Your task to perform on an android device: add a contact Image 0: 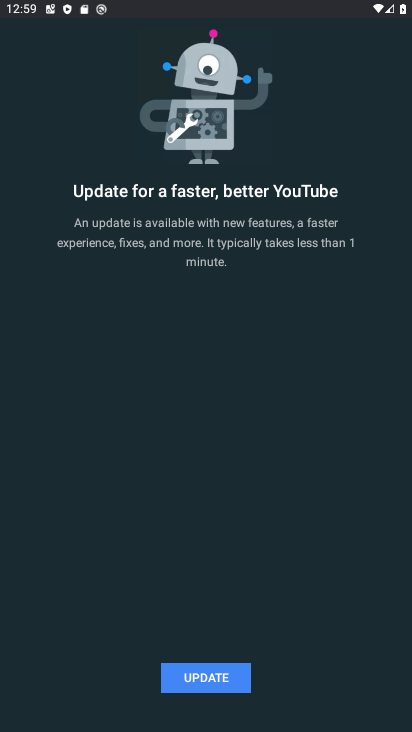
Step 0: press home button
Your task to perform on an android device: add a contact Image 1: 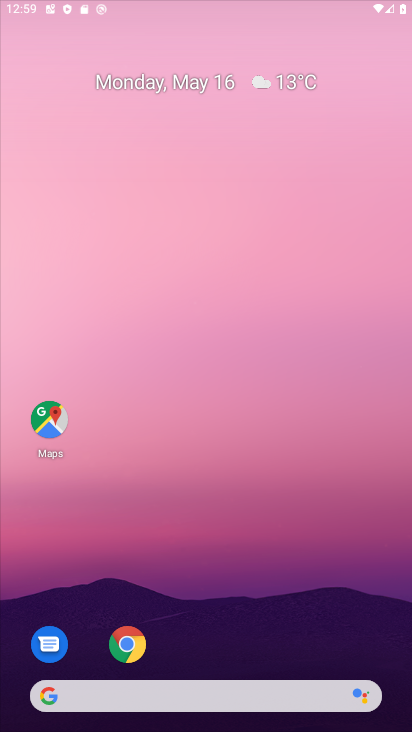
Step 1: drag from (184, 730) to (268, 259)
Your task to perform on an android device: add a contact Image 2: 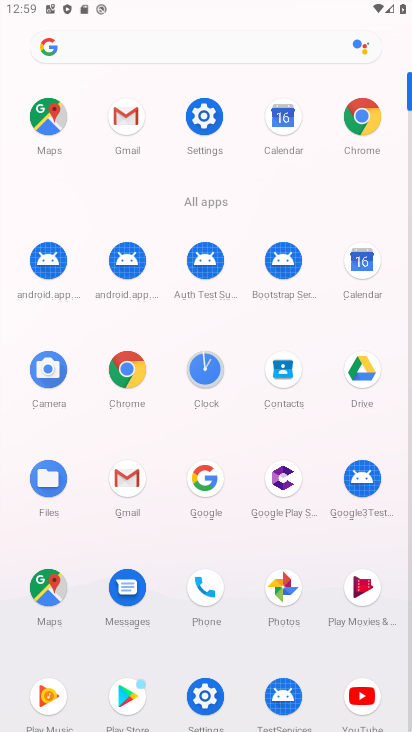
Step 2: click (279, 378)
Your task to perform on an android device: add a contact Image 3: 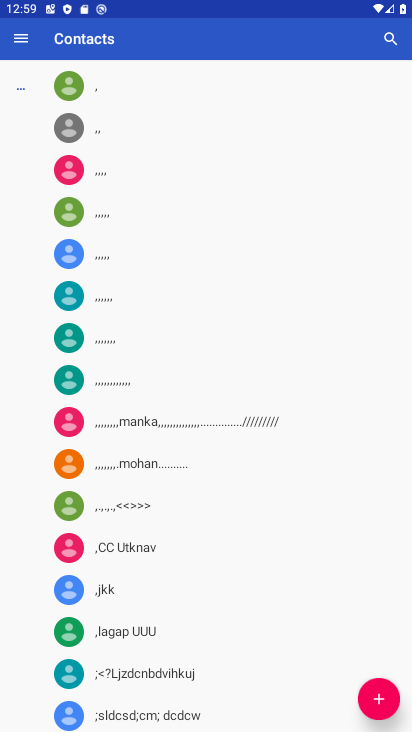
Step 3: click (388, 702)
Your task to perform on an android device: add a contact Image 4: 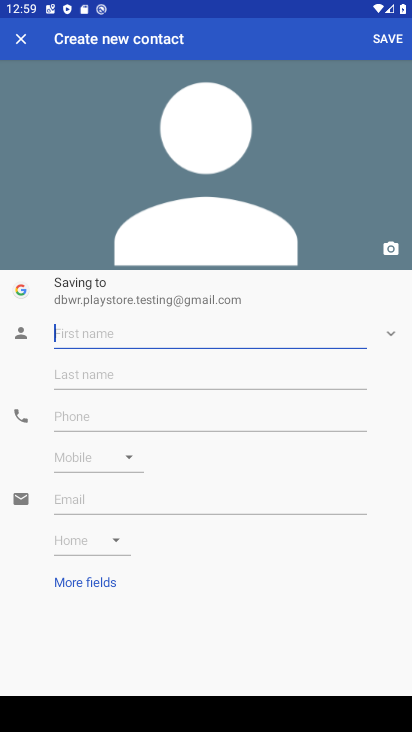
Step 4: type "jjbkbbk"
Your task to perform on an android device: add a contact Image 5: 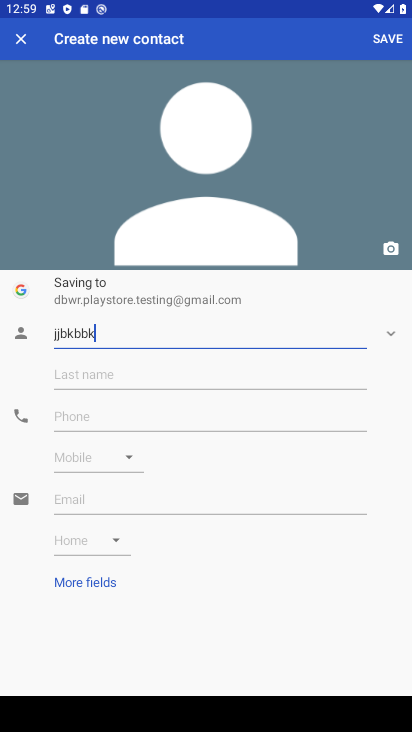
Step 5: type ""
Your task to perform on an android device: add a contact Image 6: 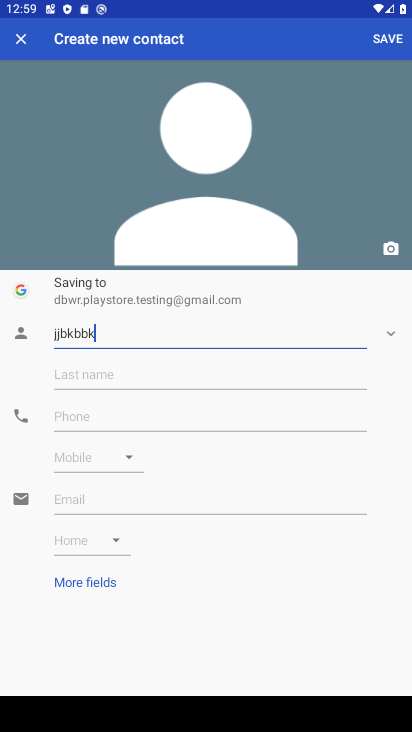
Step 6: click (155, 411)
Your task to perform on an android device: add a contact Image 7: 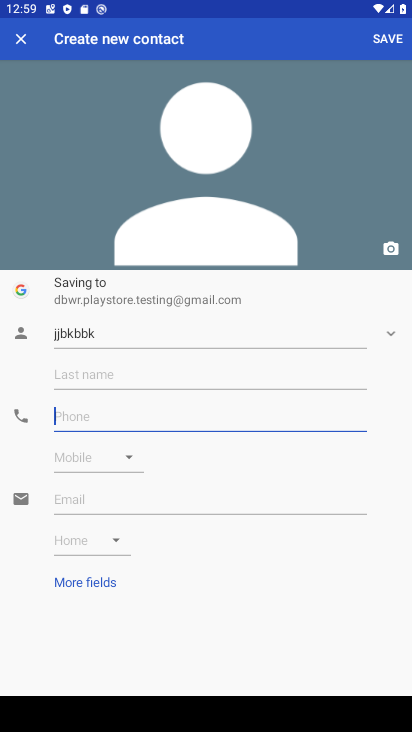
Step 7: type "979879890898"
Your task to perform on an android device: add a contact Image 8: 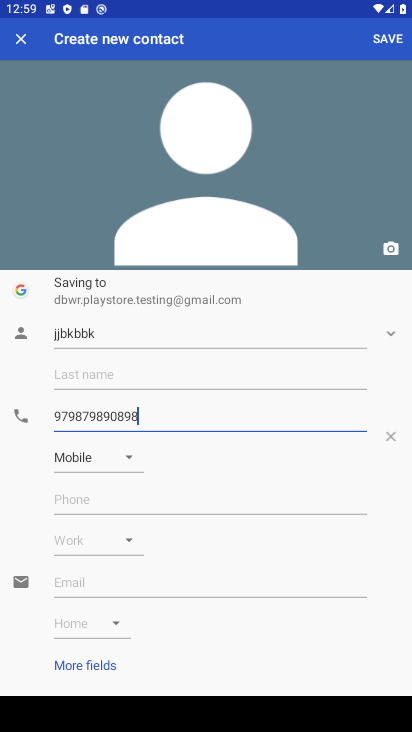
Step 8: click (393, 33)
Your task to perform on an android device: add a contact Image 9: 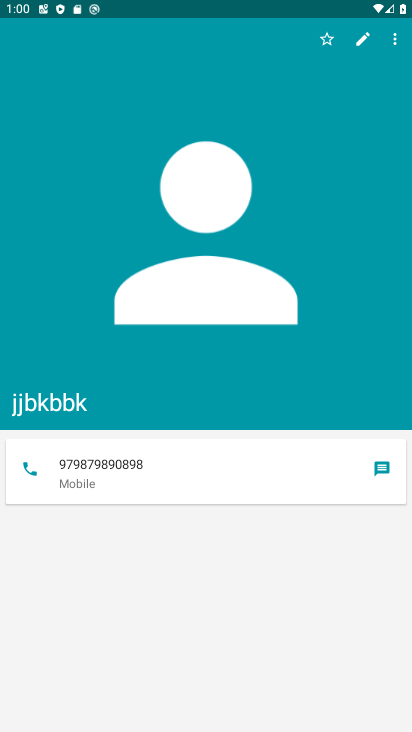
Step 9: task complete